Your task to perform on an android device: delete browsing data in the chrome app Image 0: 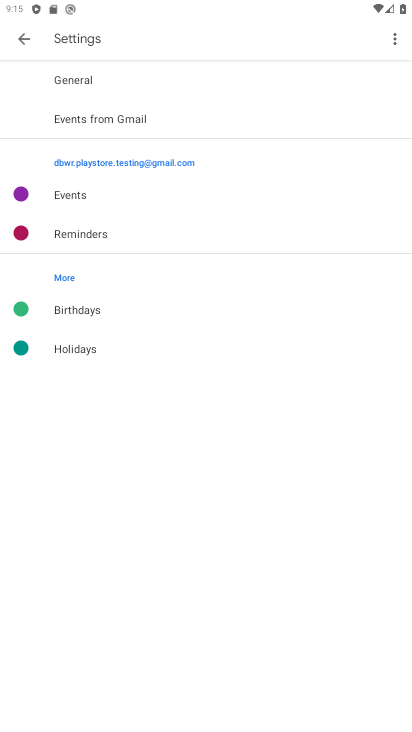
Step 0: press home button
Your task to perform on an android device: delete browsing data in the chrome app Image 1: 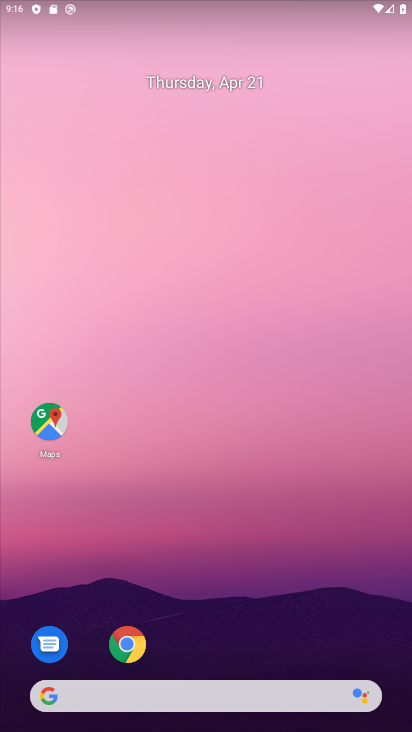
Step 1: drag from (269, 623) to (152, 127)
Your task to perform on an android device: delete browsing data in the chrome app Image 2: 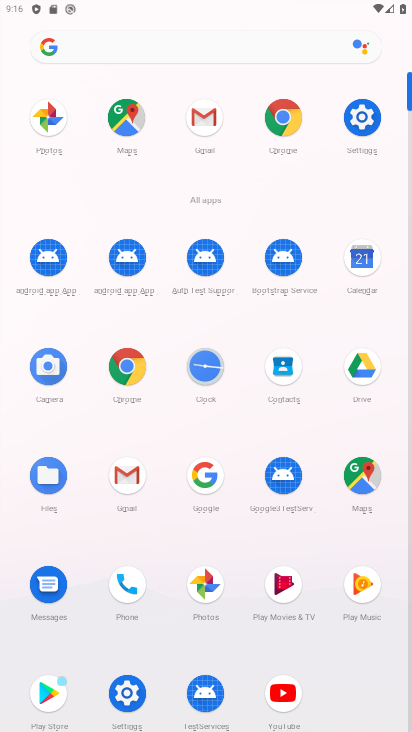
Step 2: click (273, 120)
Your task to perform on an android device: delete browsing data in the chrome app Image 3: 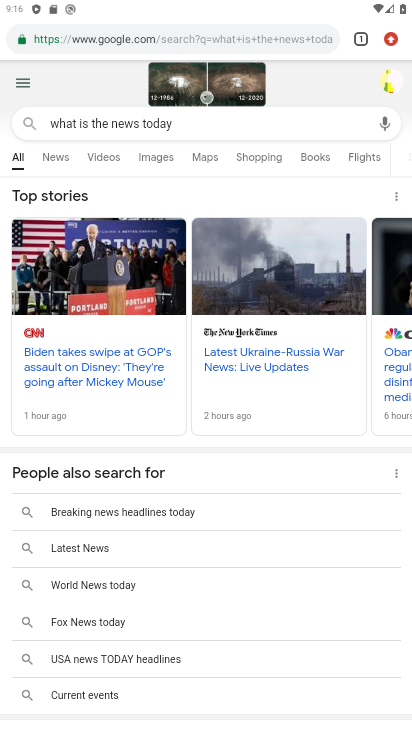
Step 3: drag from (393, 59) to (294, 265)
Your task to perform on an android device: delete browsing data in the chrome app Image 4: 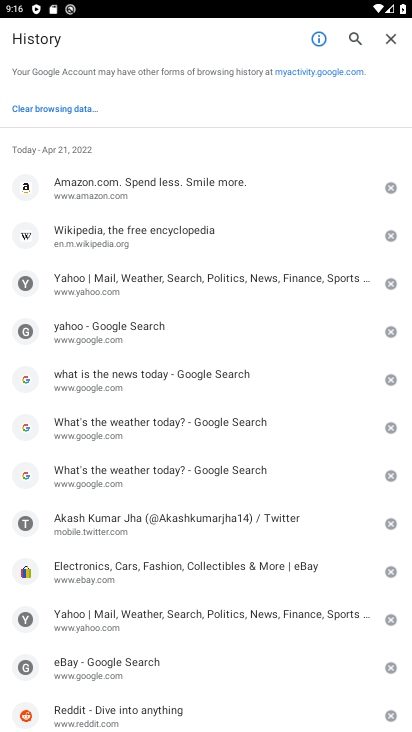
Step 4: click (28, 107)
Your task to perform on an android device: delete browsing data in the chrome app Image 5: 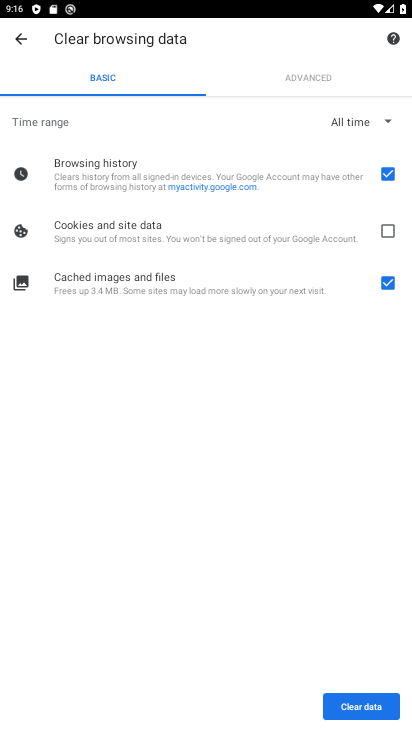
Step 5: click (351, 709)
Your task to perform on an android device: delete browsing data in the chrome app Image 6: 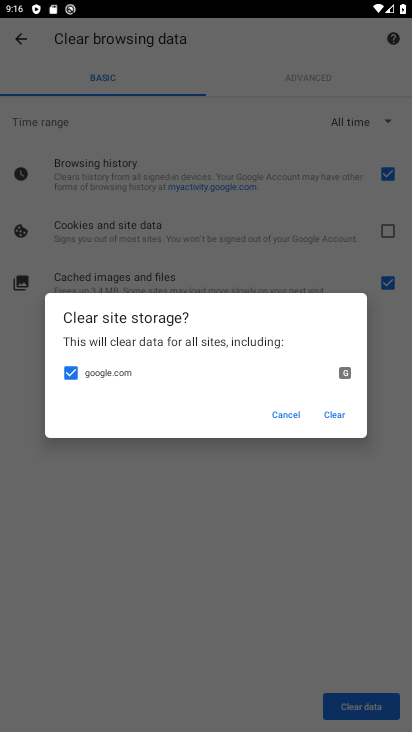
Step 6: click (331, 411)
Your task to perform on an android device: delete browsing data in the chrome app Image 7: 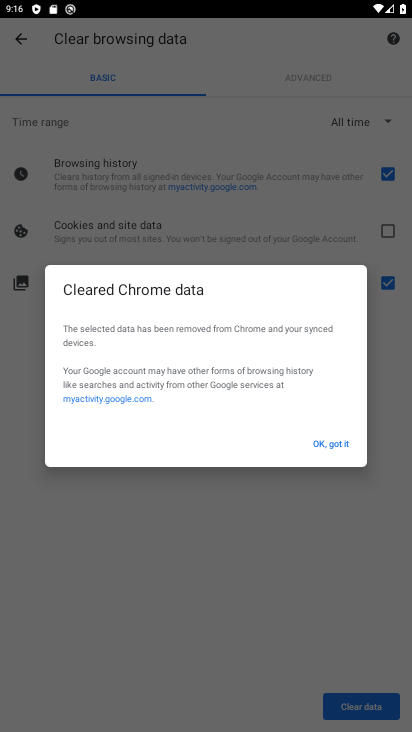
Step 7: click (337, 445)
Your task to perform on an android device: delete browsing data in the chrome app Image 8: 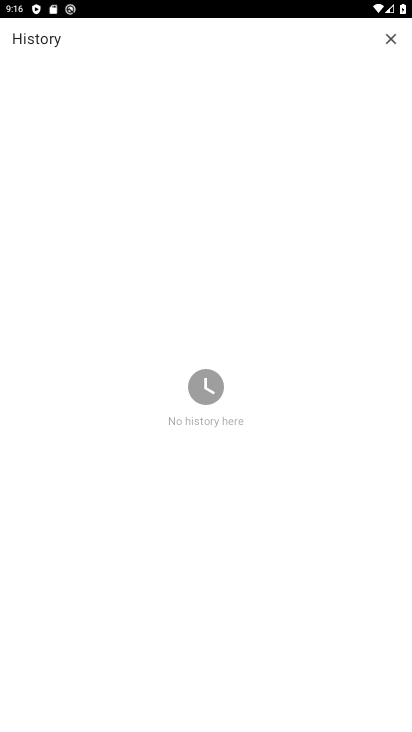
Step 8: task complete